Your task to perform on an android device: find which apps use the phone's location Image 0: 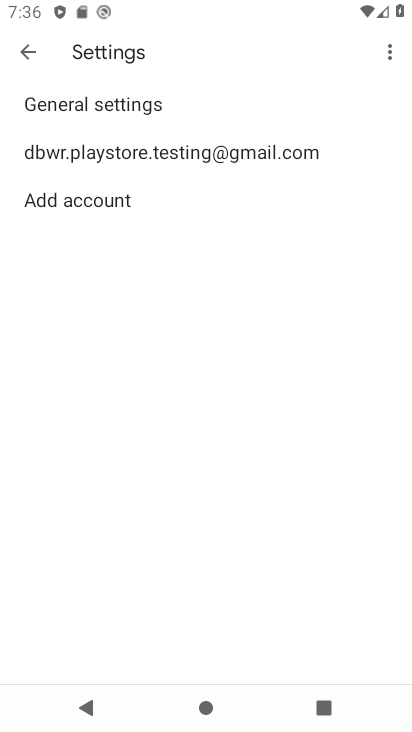
Step 0: press home button
Your task to perform on an android device: find which apps use the phone's location Image 1: 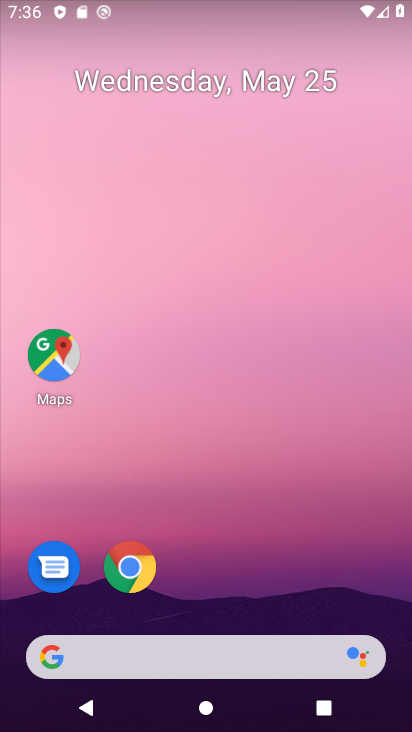
Step 1: drag from (278, 592) to (288, 16)
Your task to perform on an android device: find which apps use the phone's location Image 2: 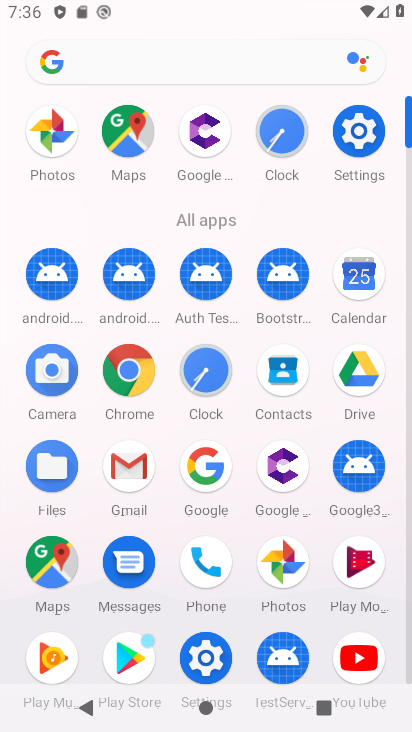
Step 2: click (363, 179)
Your task to perform on an android device: find which apps use the phone's location Image 3: 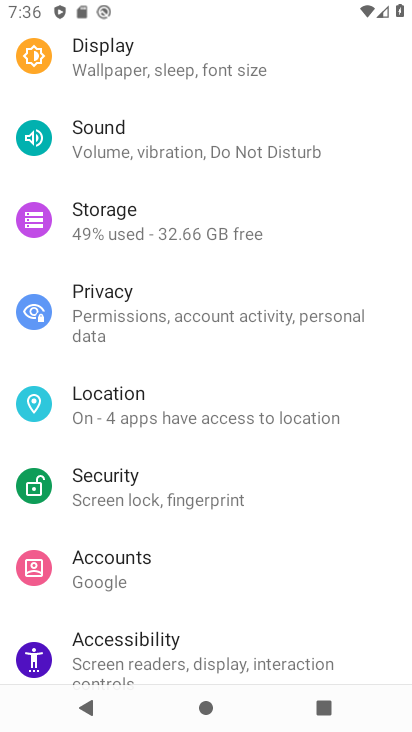
Step 3: click (213, 424)
Your task to perform on an android device: find which apps use the phone's location Image 4: 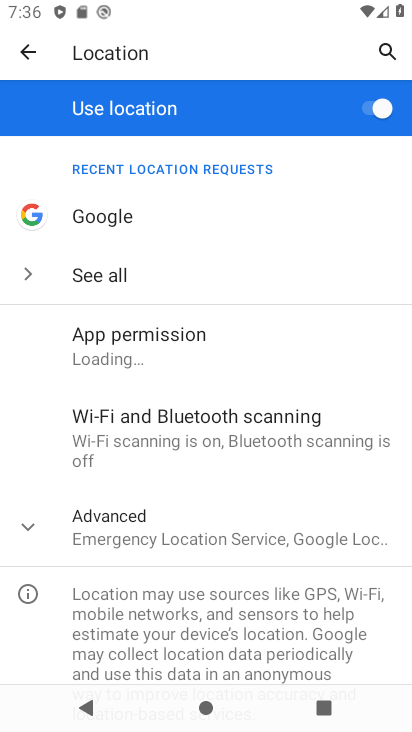
Step 4: click (182, 235)
Your task to perform on an android device: find which apps use the phone's location Image 5: 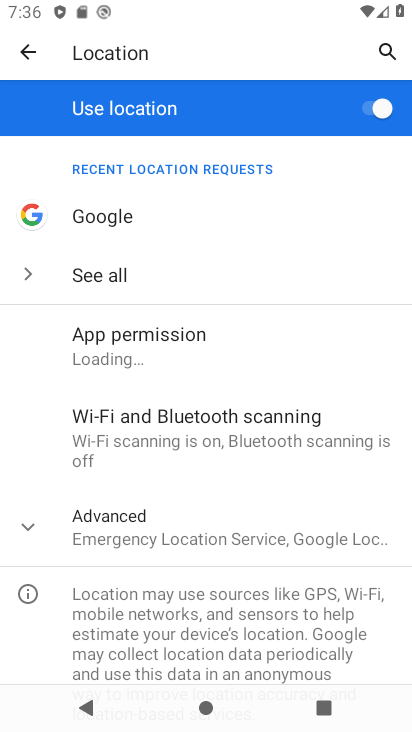
Step 5: task complete